Your task to perform on an android device: Turn on the flashlight Image 0: 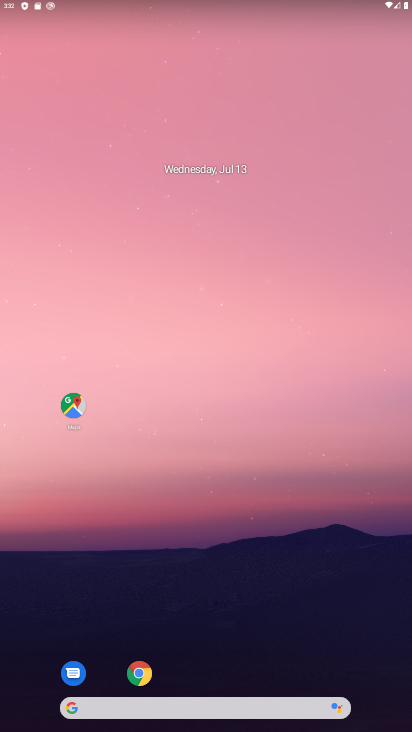
Step 0: drag from (216, 15) to (202, 465)
Your task to perform on an android device: Turn on the flashlight Image 1: 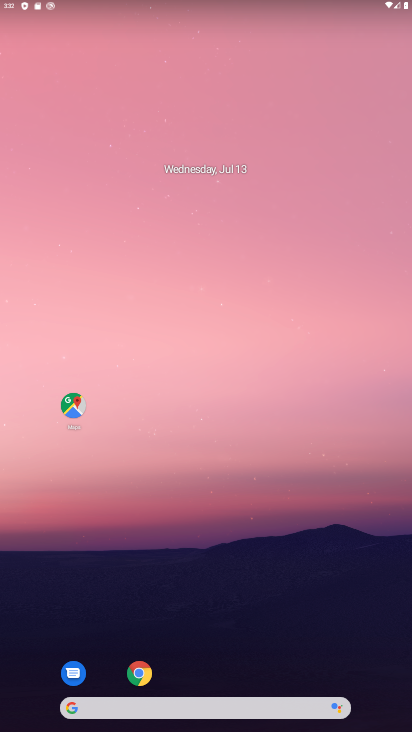
Step 1: drag from (208, 2) to (223, 417)
Your task to perform on an android device: Turn on the flashlight Image 2: 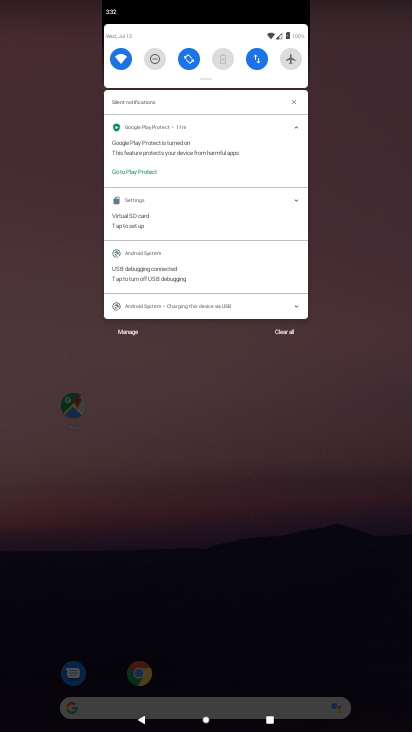
Step 2: drag from (203, 68) to (224, 484)
Your task to perform on an android device: Turn on the flashlight Image 3: 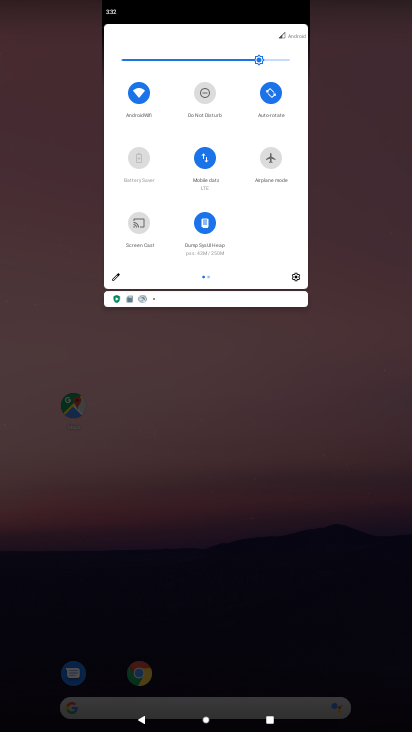
Step 3: drag from (258, 217) to (6, 266)
Your task to perform on an android device: Turn on the flashlight Image 4: 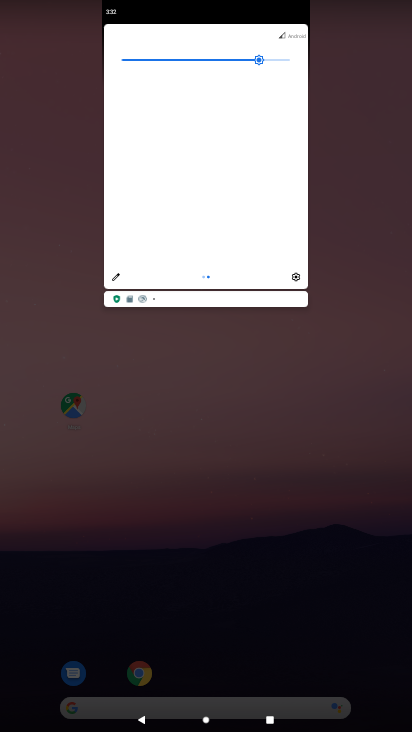
Step 4: click (116, 278)
Your task to perform on an android device: Turn on the flashlight Image 5: 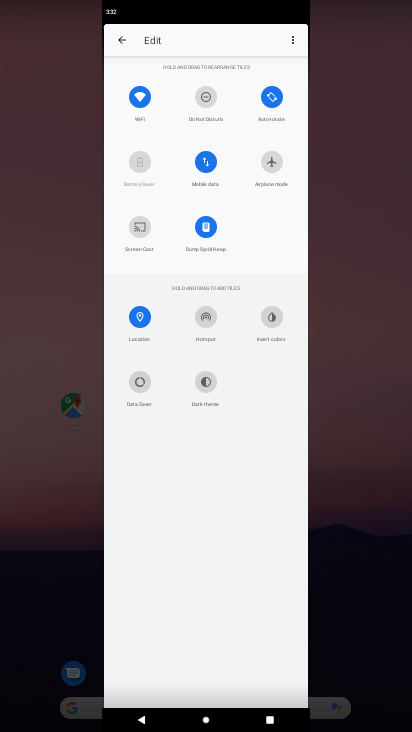
Step 5: task complete